Your task to perform on an android device: Open display settings Image 0: 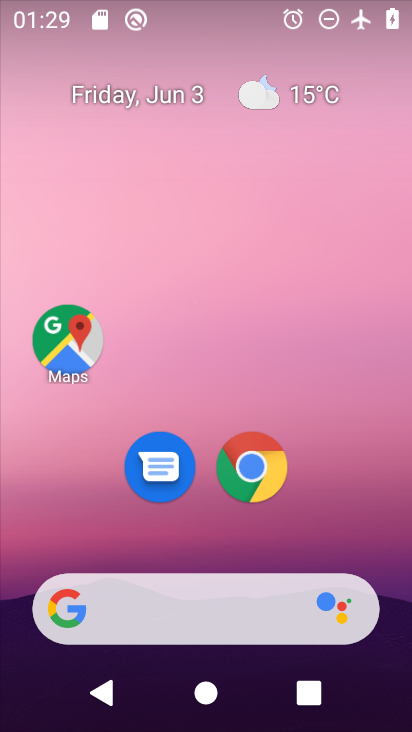
Step 0: drag from (396, 609) to (309, 22)
Your task to perform on an android device: Open display settings Image 1: 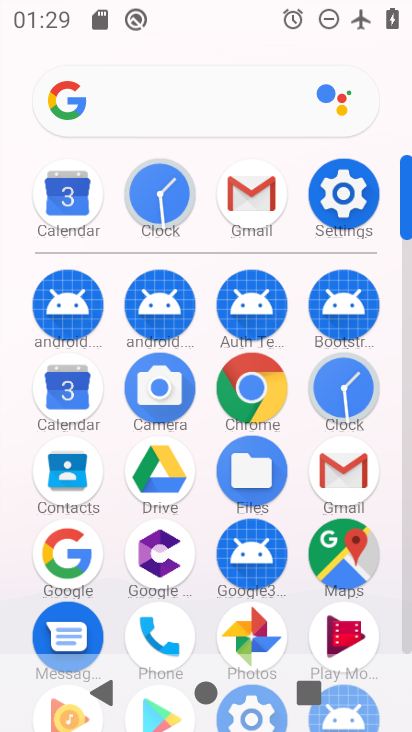
Step 1: click (402, 617)
Your task to perform on an android device: Open display settings Image 2: 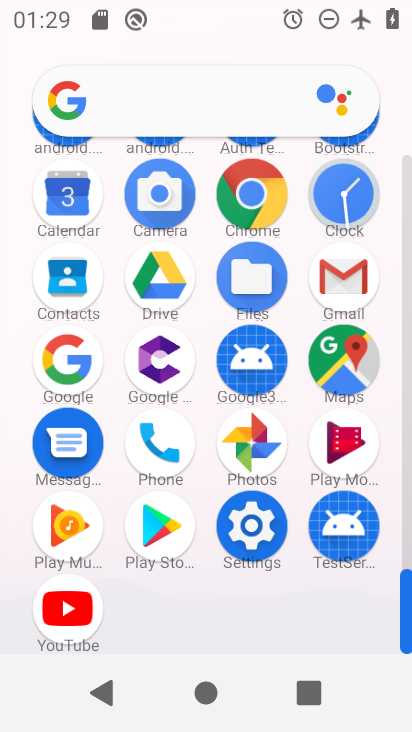
Step 2: click (249, 524)
Your task to perform on an android device: Open display settings Image 3: 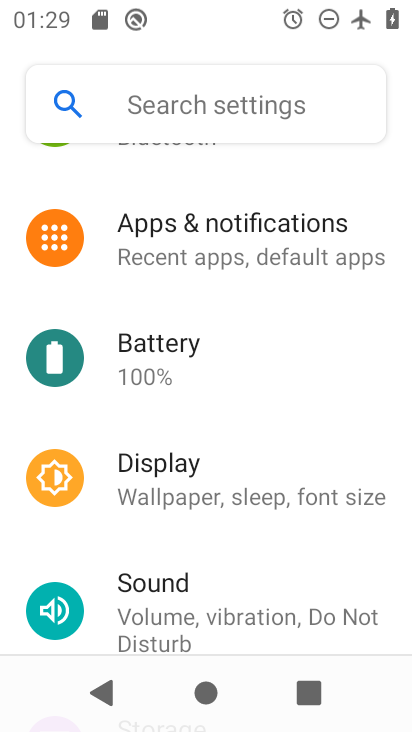
Step 3: click (170, 491)
Your task to perform on an android device: Open display settings Image 4: 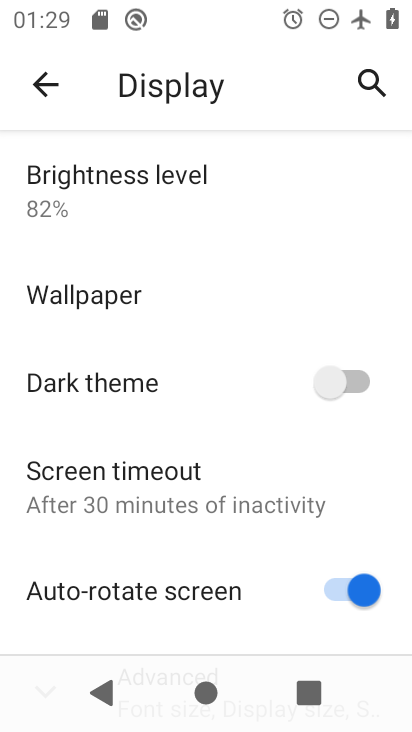
Step 4: drag from (269, 533) to (219, 168)
Your task to perform on an android device: Open display settings Image 5: 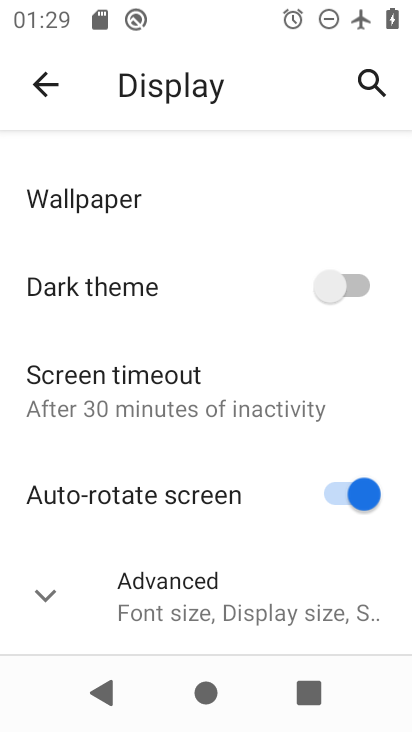
Step 5: click (42, 584)
Your task to perform on an android device: Open display settings Image 6: 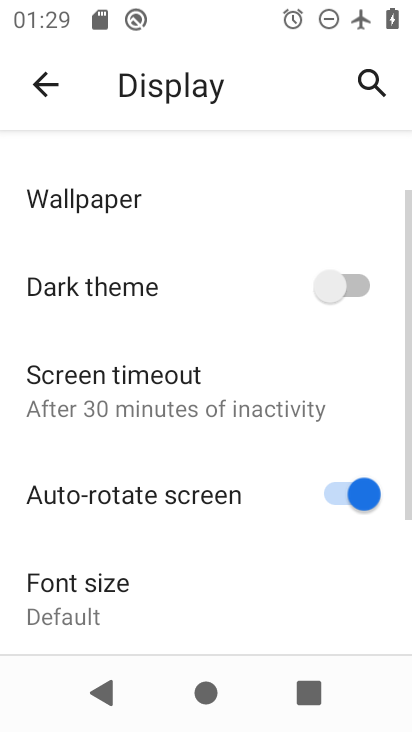
Step 6: task complete